Your task to perform on an android device: turn off sleep mode Image 0: 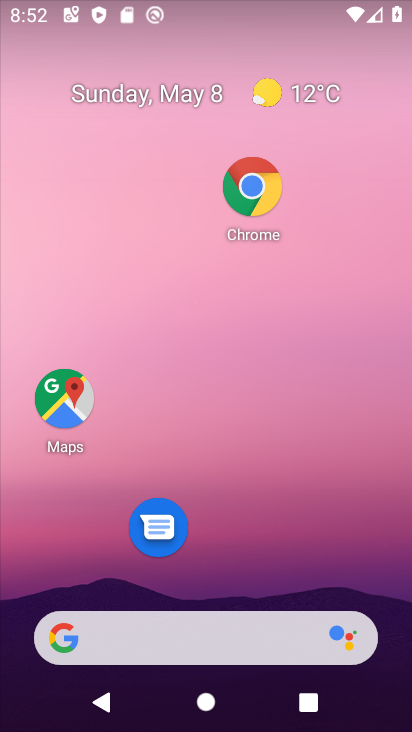
Step 0: drag from (296, 574) to (326, 362)
Your task to perform on an android device: turn off sleep mode Image 1: 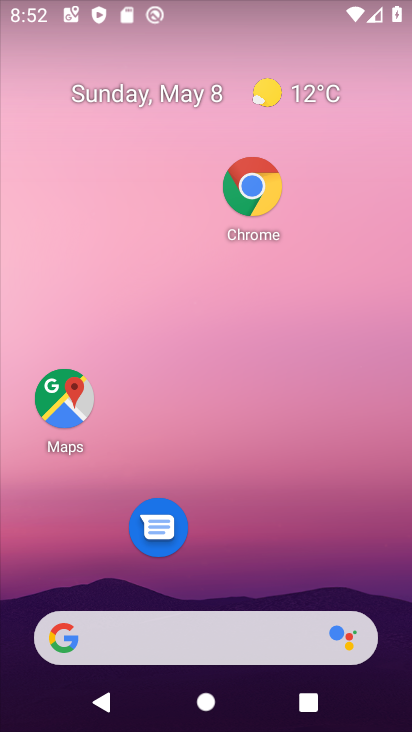
Step 1: drag from (298, 508) to (299, 218)
Your task to perform on an android device: turn off sleep mode Image 2: 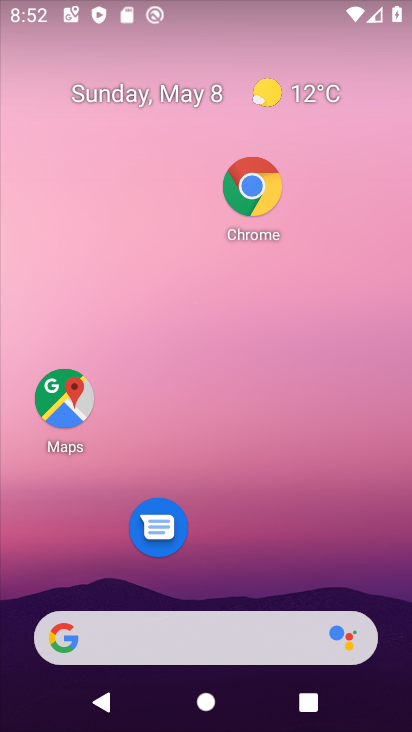
Step 2: drag from (278, 520) to (356, 202)
Your task to perform on an android device: turn off sleep mode Image 3: 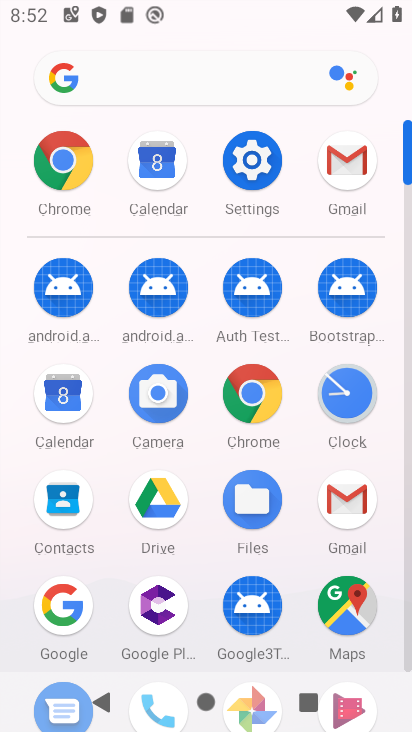
Step 3: click (268, 173)
Your task to perform on an android device: turn off sleep mode Image 4: 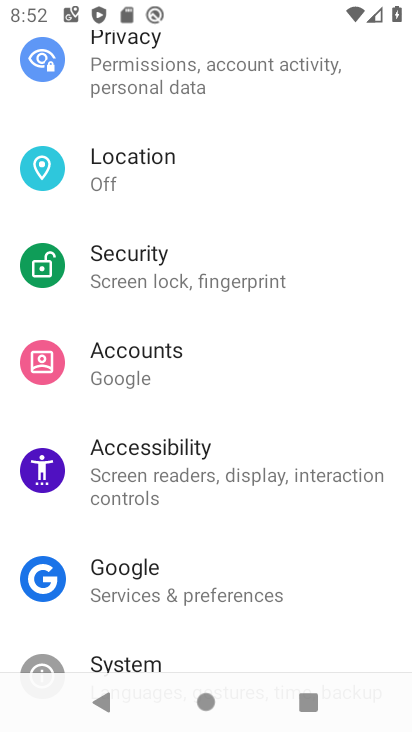
Step 4: task complete